Your task to perform on an android device: When is my next meeting? Image 0: 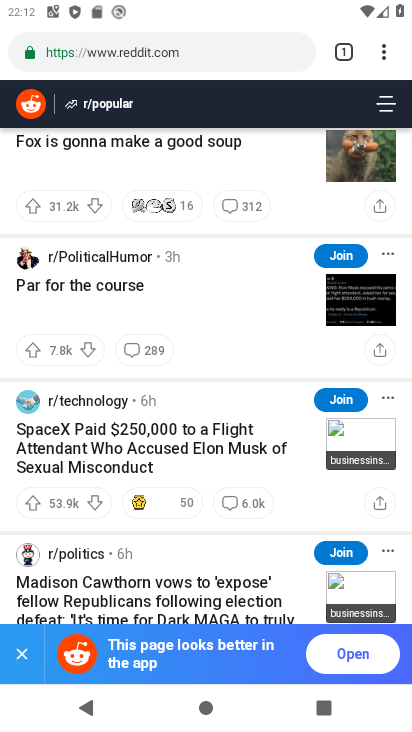
Step 0: press home button
Your task to perform on an android device: When is my next meeting? Image 1: 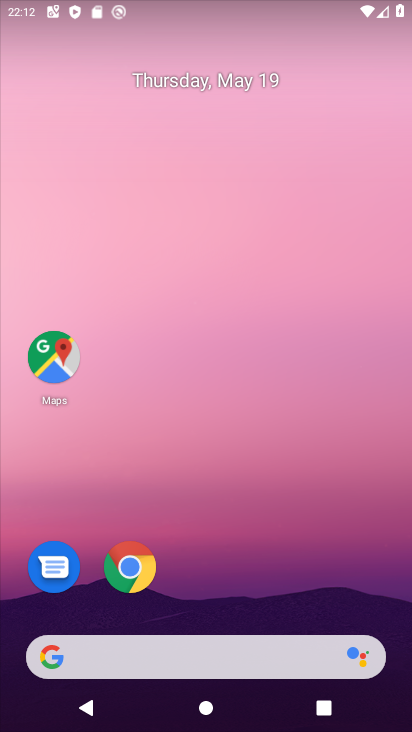
Step 1: drag from (230, 618) to (311, 263)
Your task to perform on an android device: When is my next meeting? Image 2: 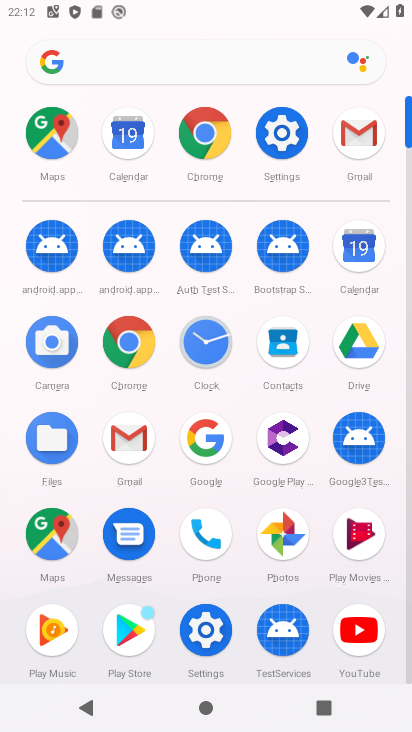
Step 2: click (360, 245)
Your task to perform on an android device: When is my next meeting? Image 3: 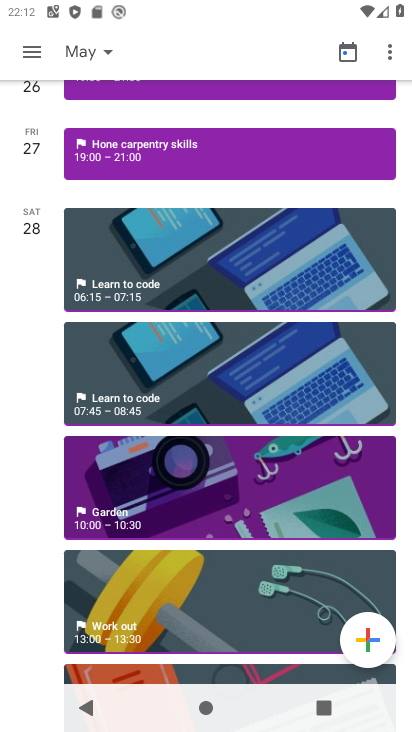
Step 3: task complete